Your task to perform on an android device: Go to Google Image 0: 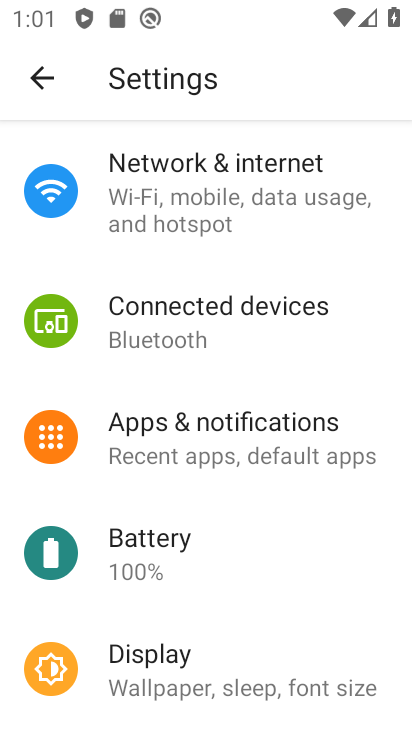
Step 0: press home button
Your task to perform on an android device: Go to Google Image 1: 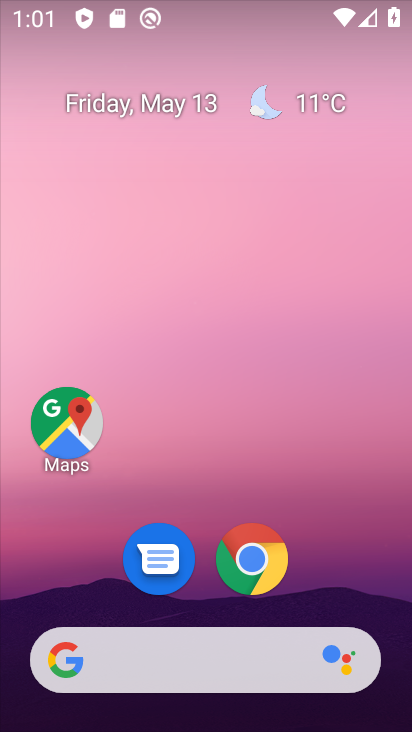
Step 1: click (373, 263)
Your task to perform on an android device: Go to Google Image 2: 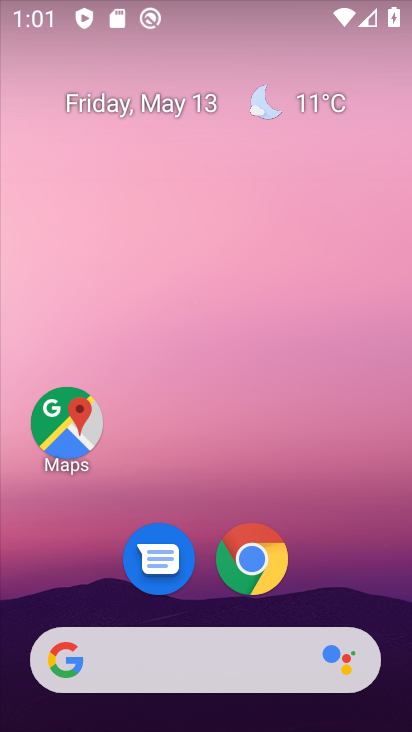
Step 2: click (228, 575)
Your task to perform on an android device: Go to Google Image 3: 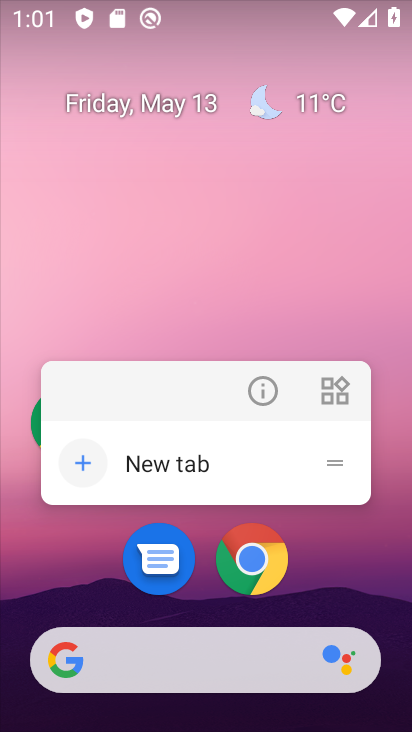
Step 3: click (233, 166)
Your task to perform on an android device: Go to Google Image 4: 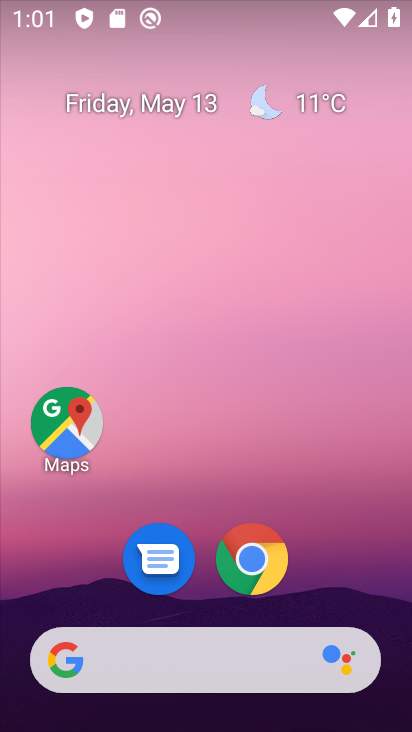
Step 4: press back button
Your task to perform on an android device: Go to Google Image 5: 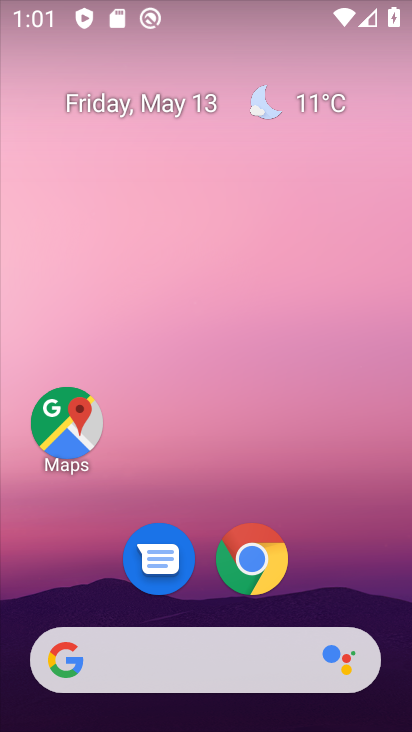
Step 5: drag from (397, 667) to (365, 207)
Your task to perform on an android device: Go to Google Image 6: 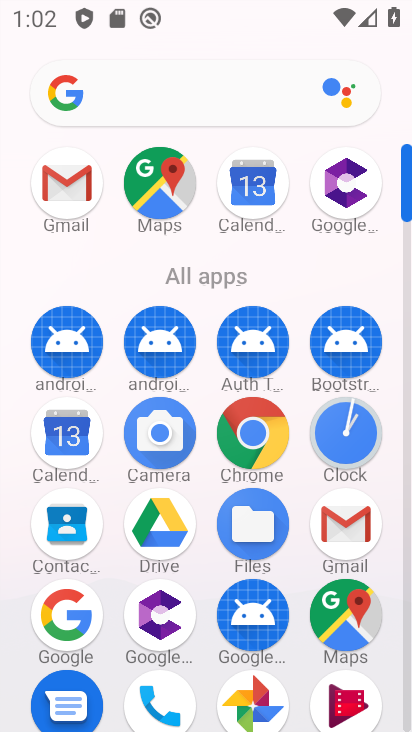
Step 6: click (70, 619)
Your task to perform on an android device: Go to Google Image 7: 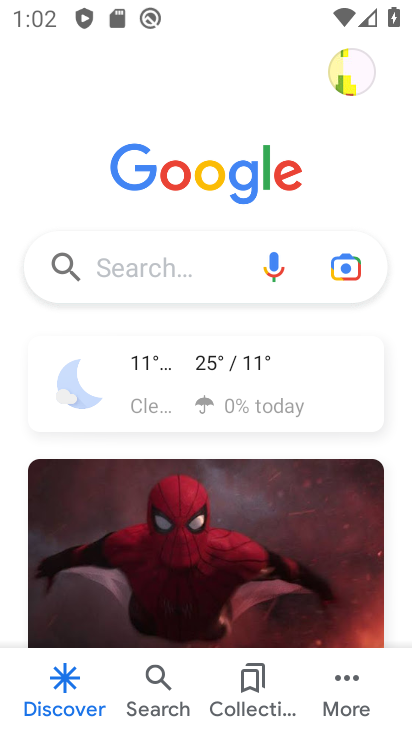
Step 7: task complete